Your task to perform on an android device: uninstall "ColorNote Notepad Notes" Image 0: 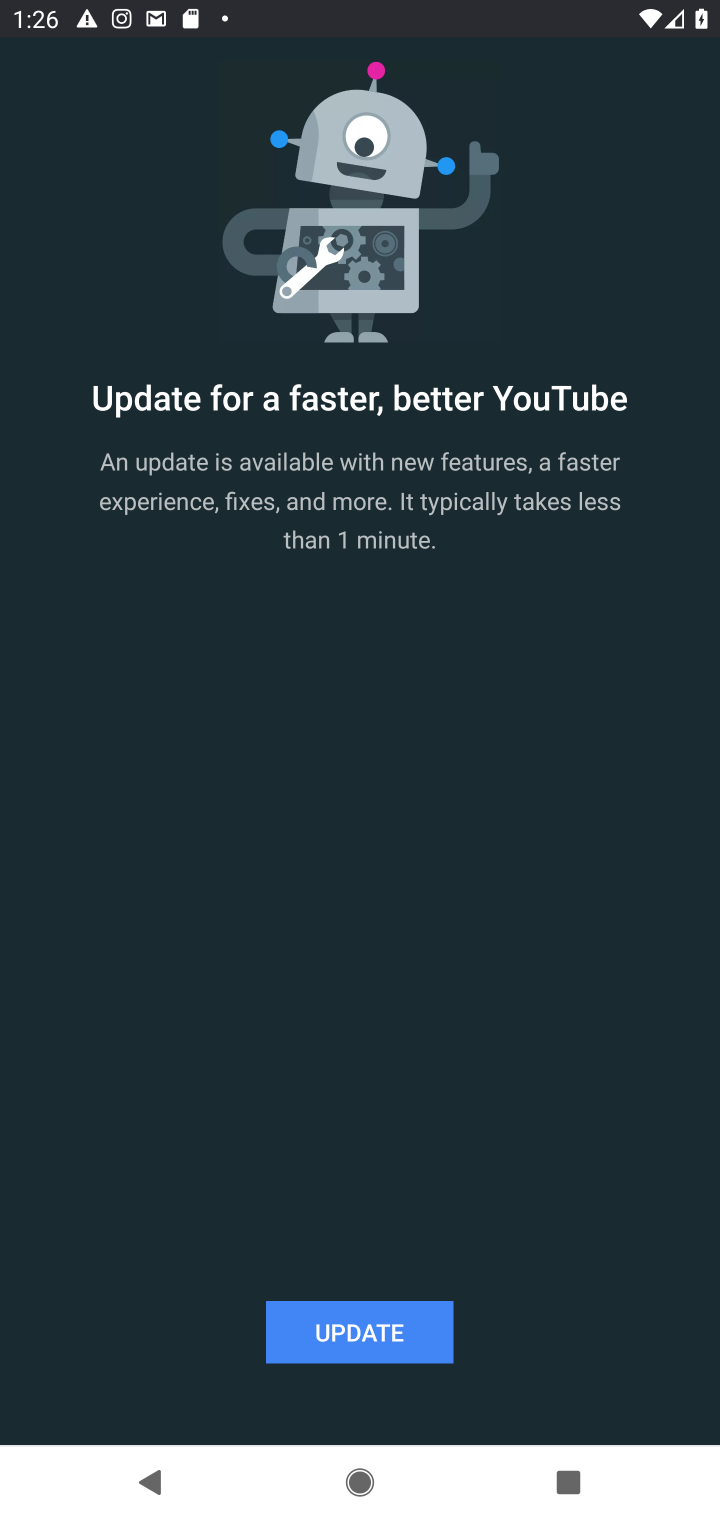
Step 0: press home button
Your task to perform on an android device: uninstall "ColorNote Notepad Notes" Image 1: 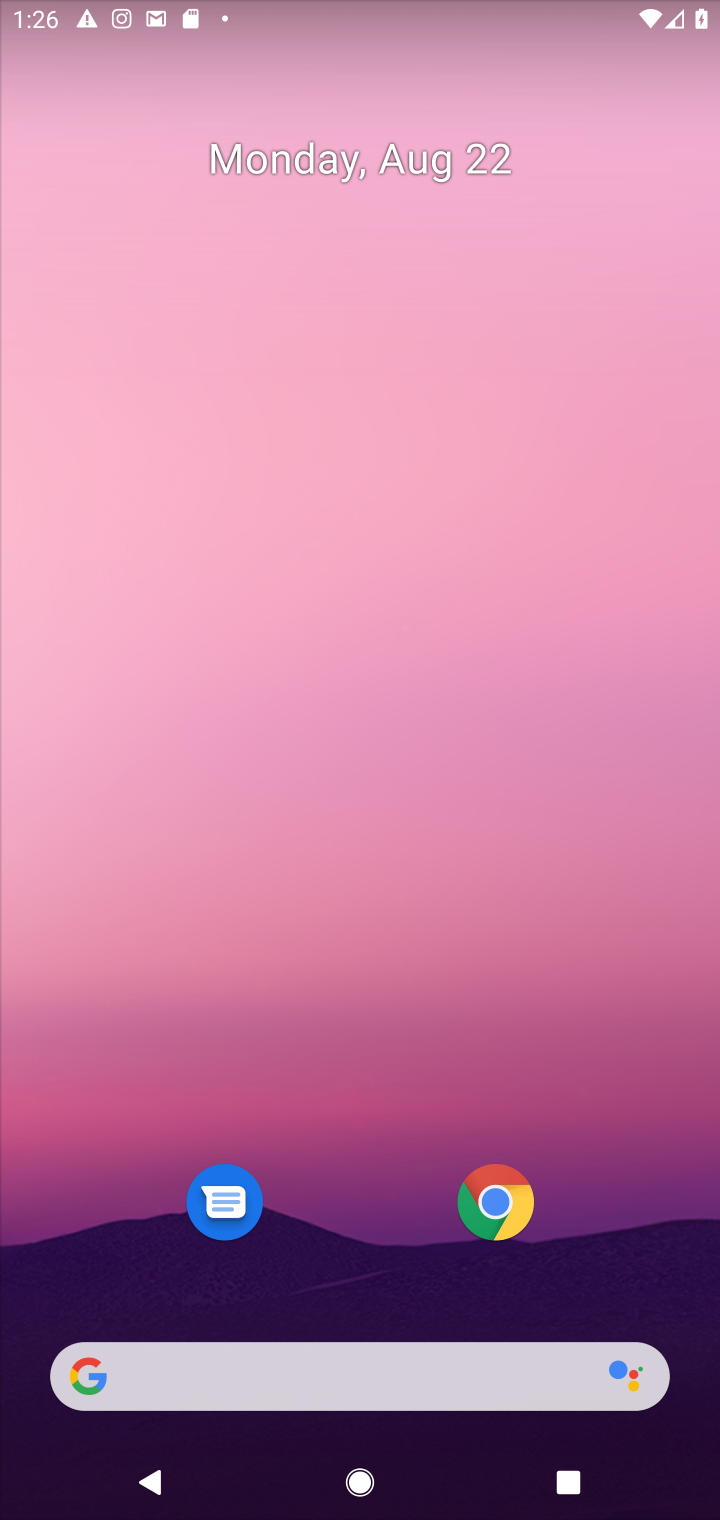
Step 1: drag from (340, 1311) to (333, 99)
Your task to perform on an android device: uninstall "ColorNote Notepad Notes" Image 2: 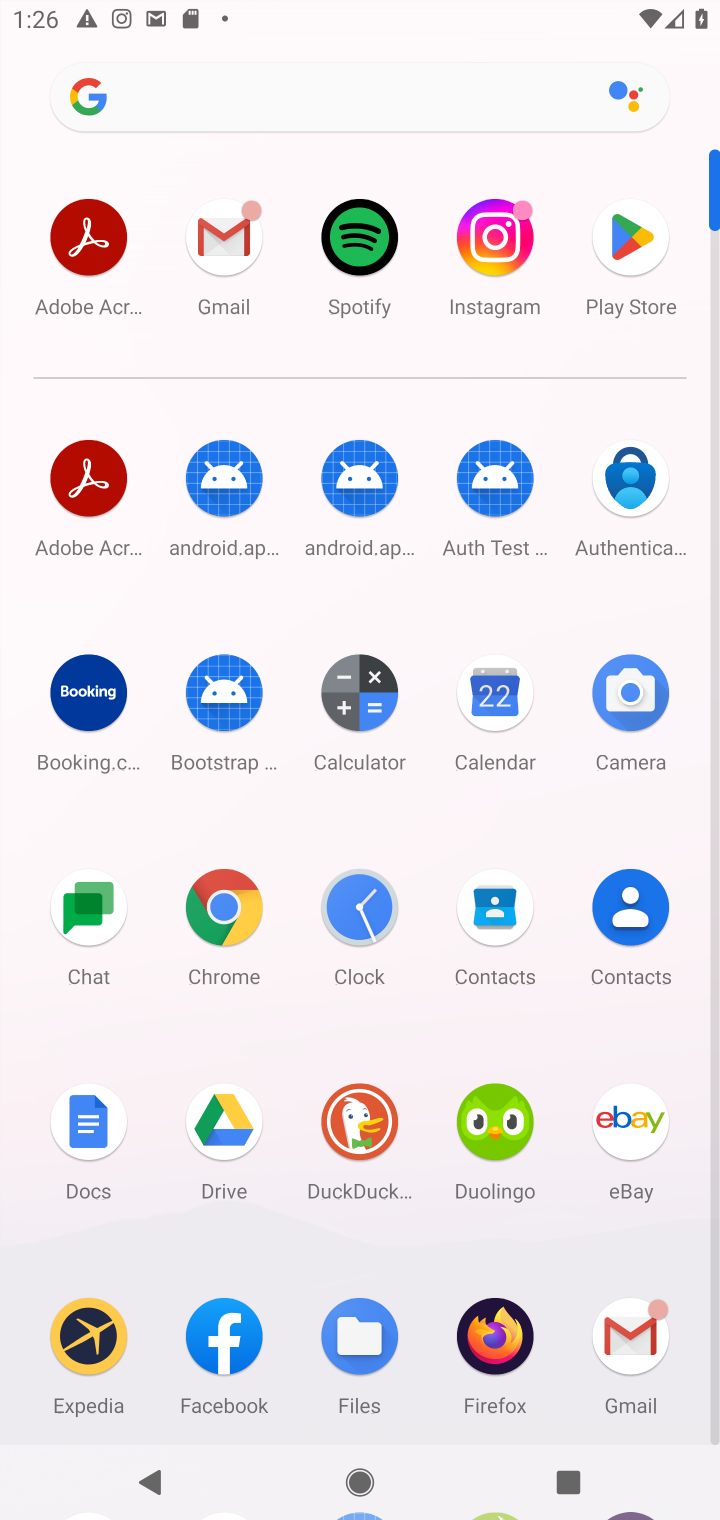
Step 2: click (636, 247)
Your task to perform on an android device: uninstall "ColorNote Notepad Notes" Image 3: 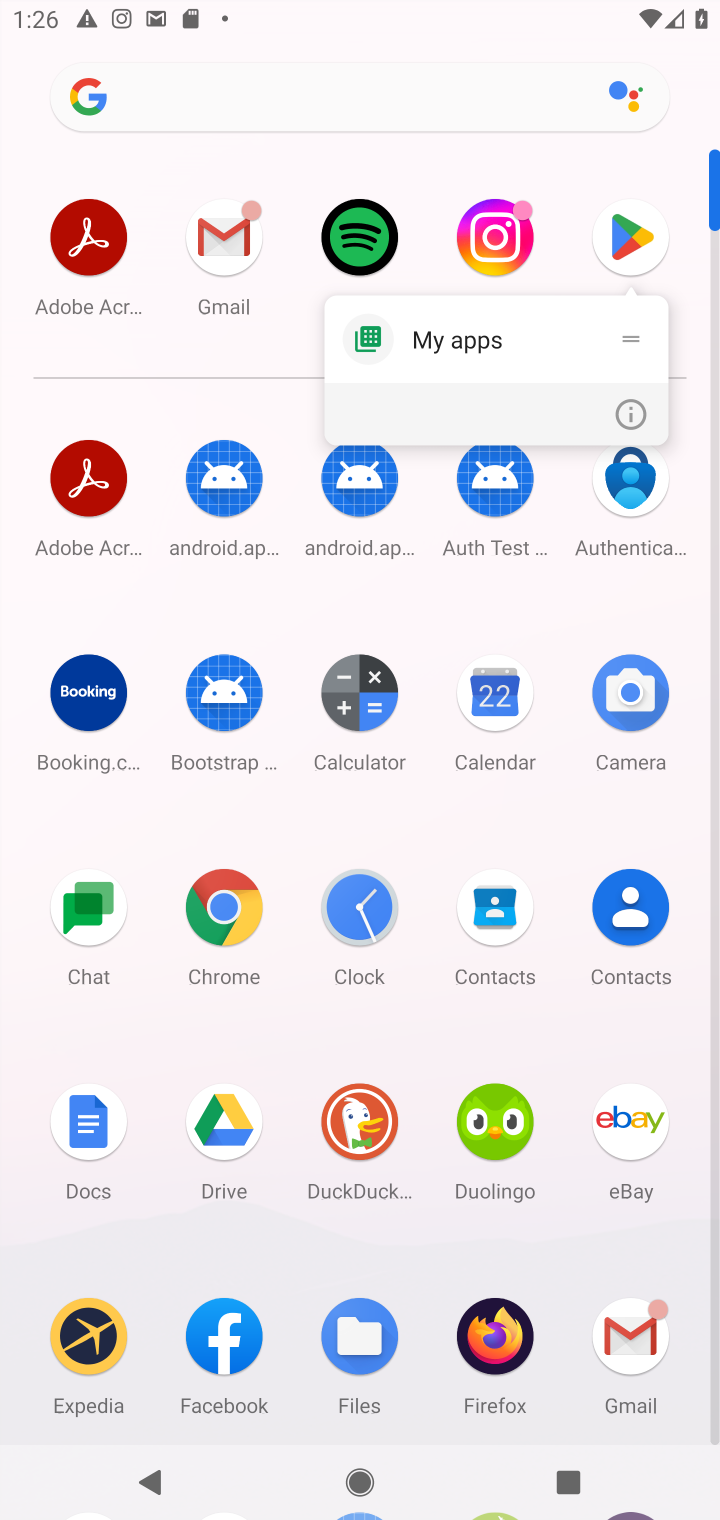
Step 3: click (624, 231)
Your task to perform on an android device: uninstall "ColorNote Notepad Notes" Image 4: 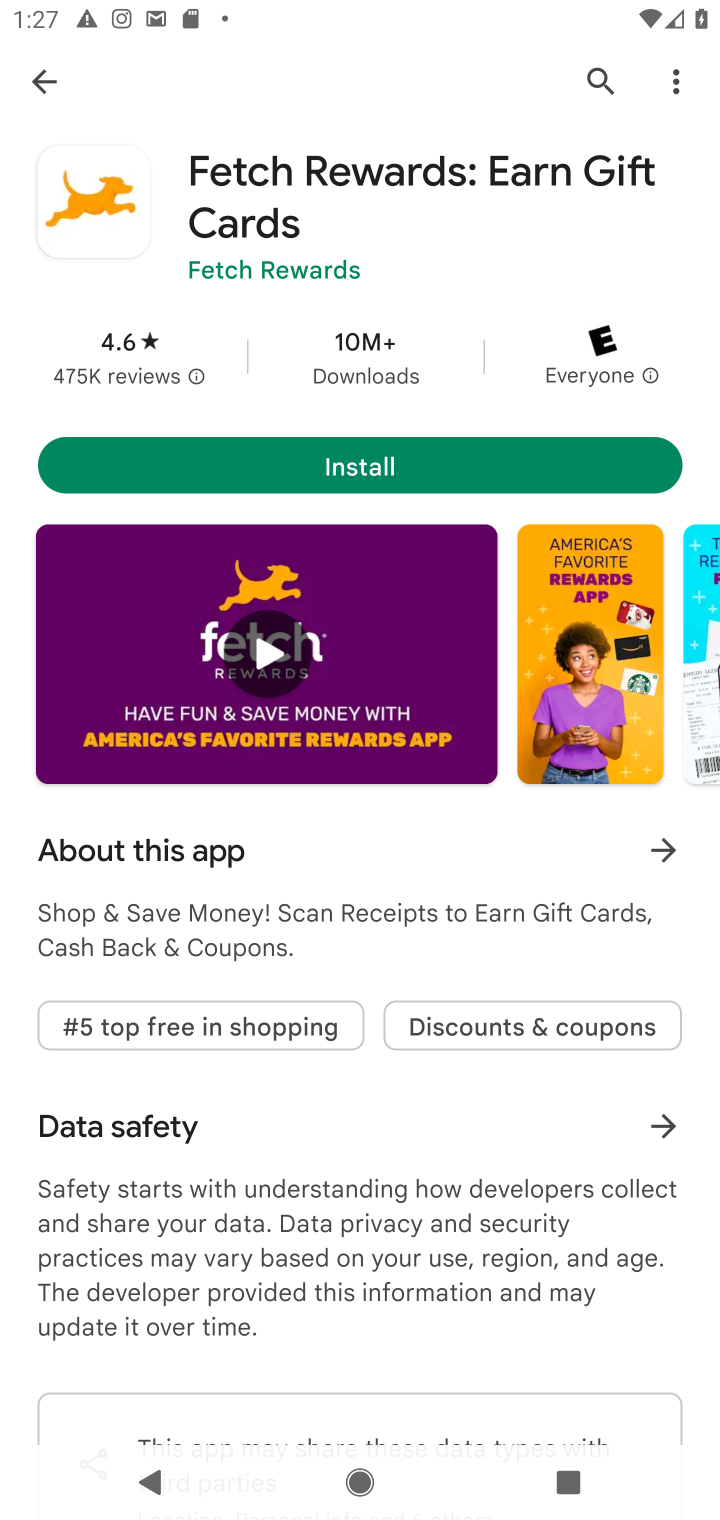
Step 4: click (603, 70)
Your task to perform on an android device: uninstall "ColorNote Notepad Notes" Image 5: 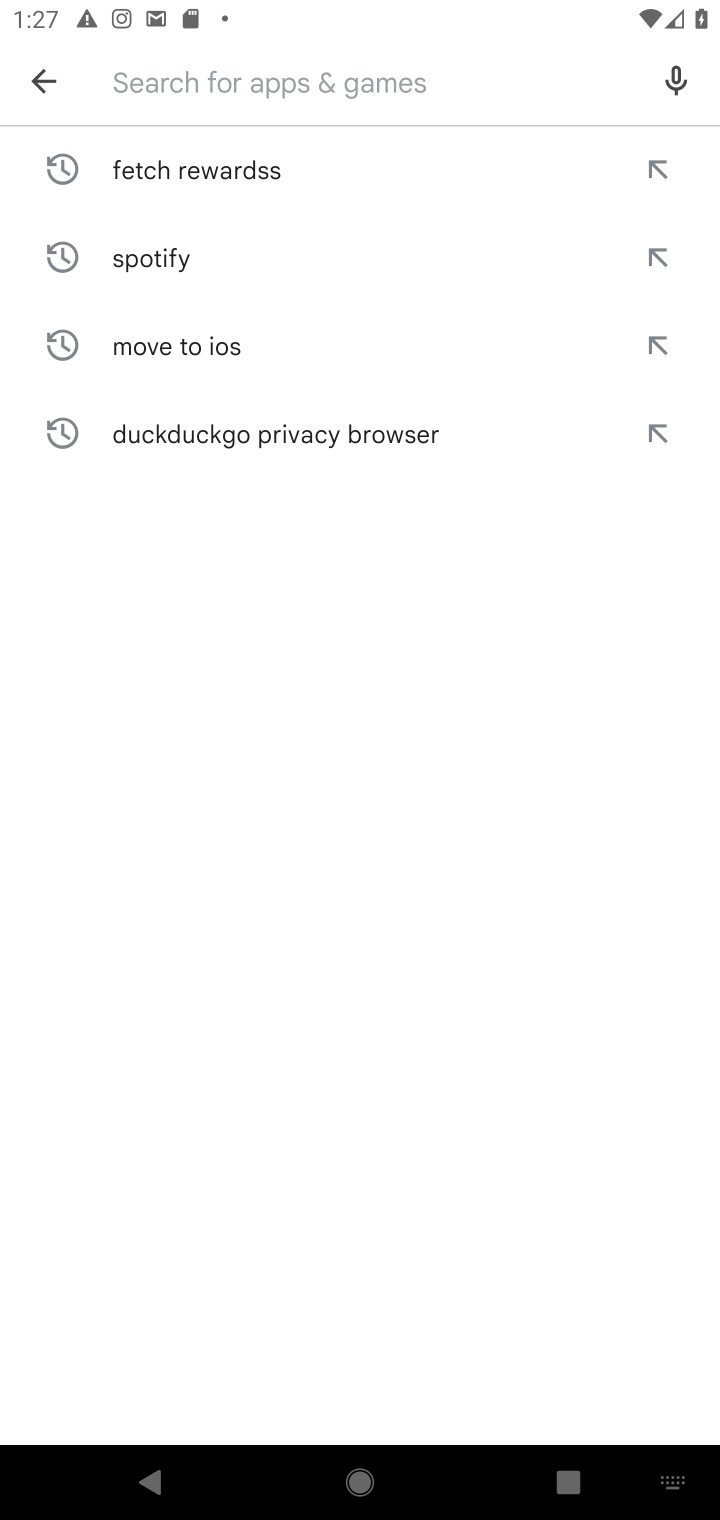
Step 5: type "ColorNote Notepad Notes"
Your task to perform on an android device: uninstall "ColorNote Notepad Notes" Image 6: 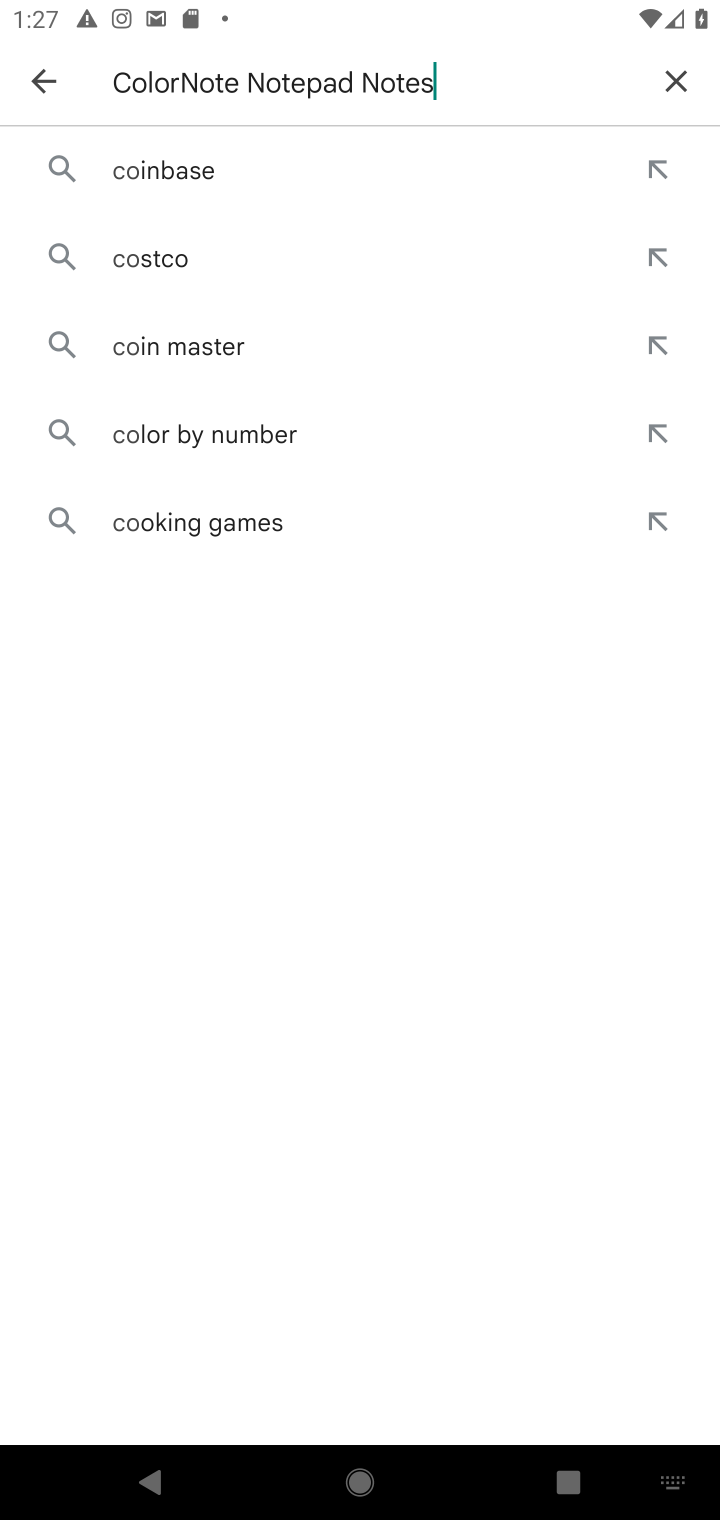
Step 6: type ""
Your task to perform on an android device: uninstall "ColorNote Notepad Notes" Image 7: 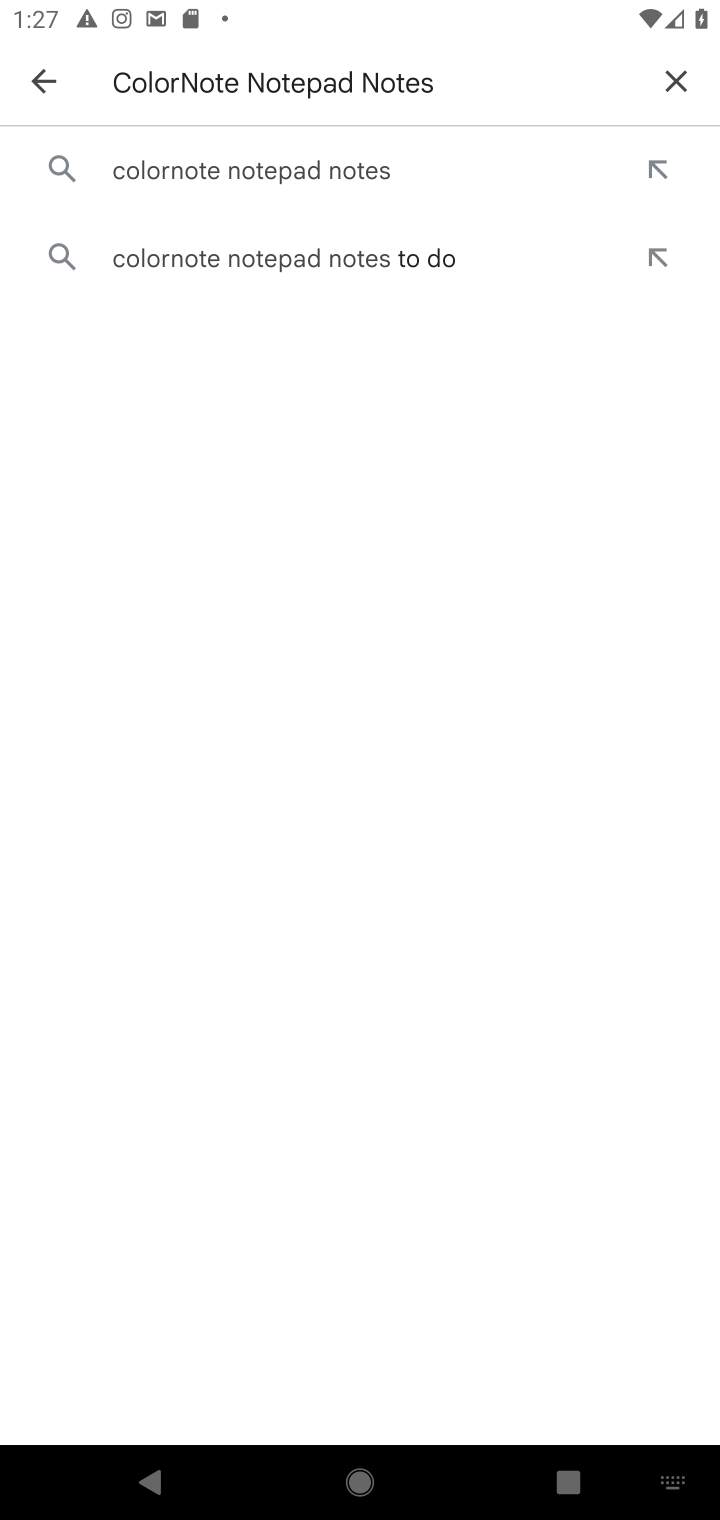
Step 7: click (296, 173)
Your task to perform on an android device: uninstall "ColorNote Notepad Notes" Image 8: 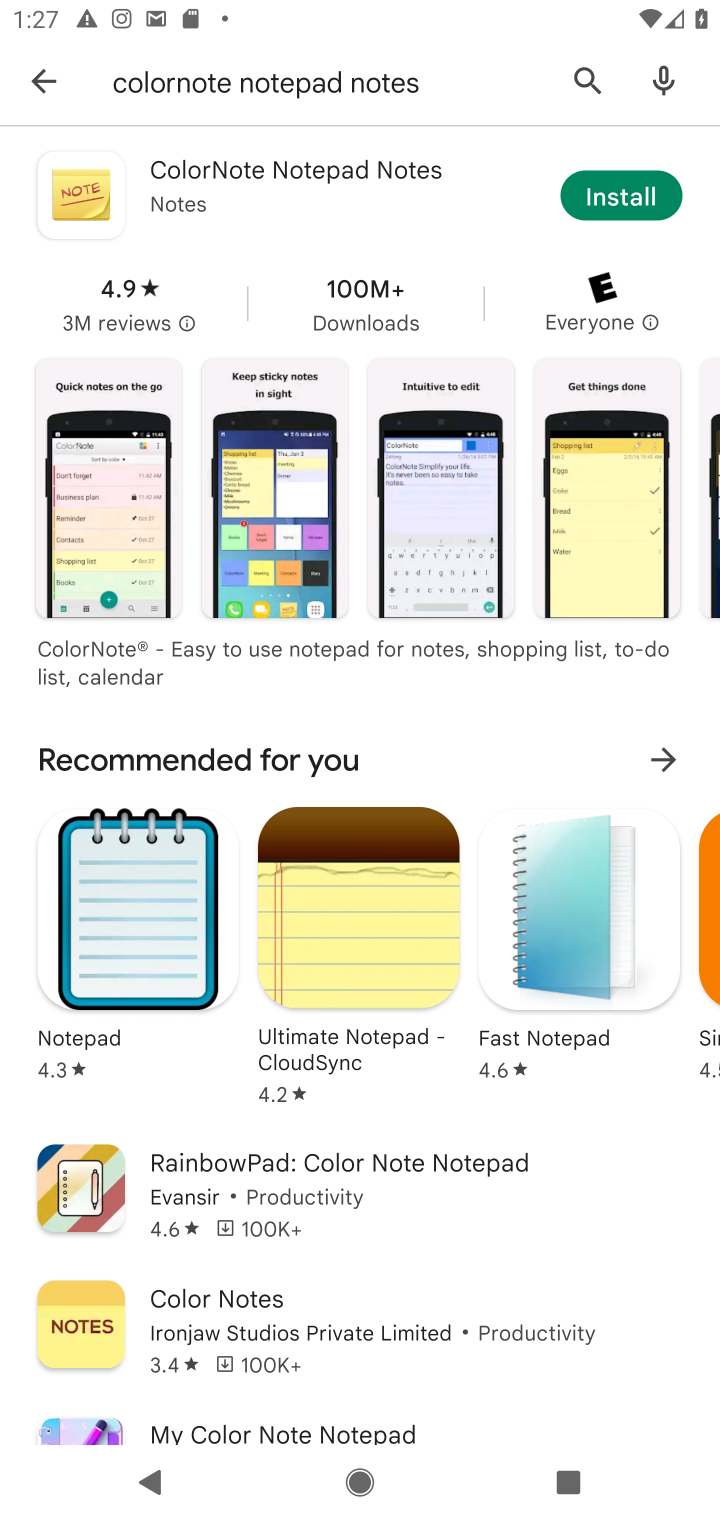
Step 8: task complete